Your task to perform on an android device: open wifi settings Image 0: 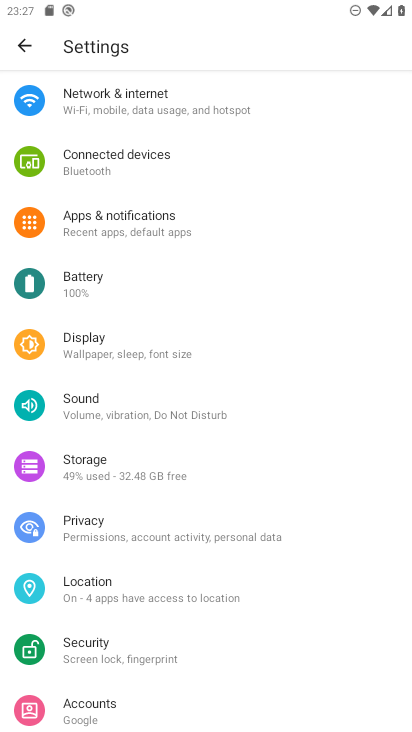
Step 0: click (104, 108)
Your task to perform on an android device: open wifi settings Image 1: 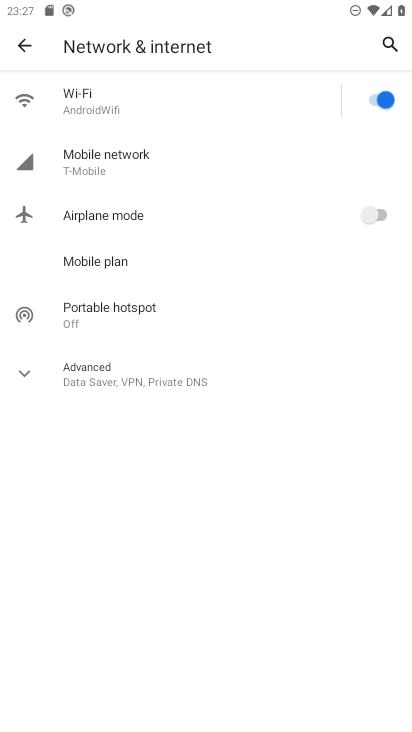
Step 1: click (118, 110)
Your task to perform on an android device: open wifi settings Image 2: 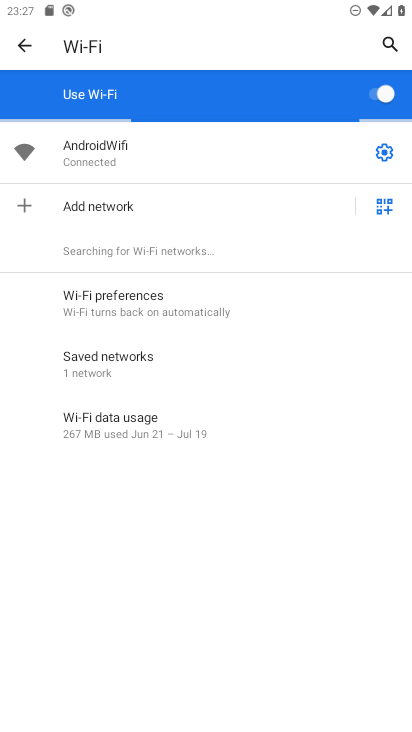
Step 2: task complete